Your task to perform on an android device: Open sound settings Image 0: 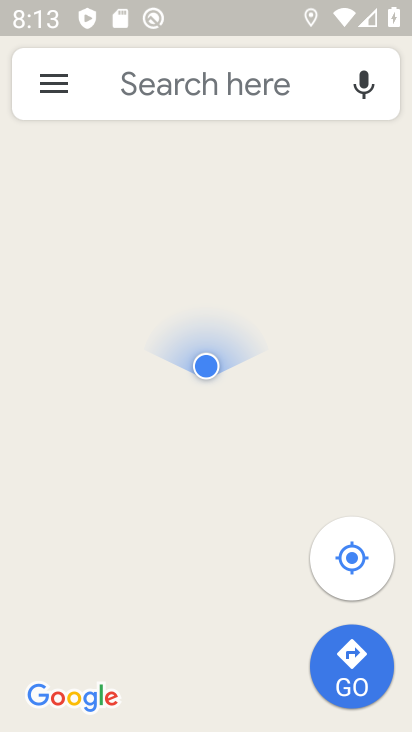
Step 0: press home button
Your task to perform on an android device: Open sound settings Image 1: 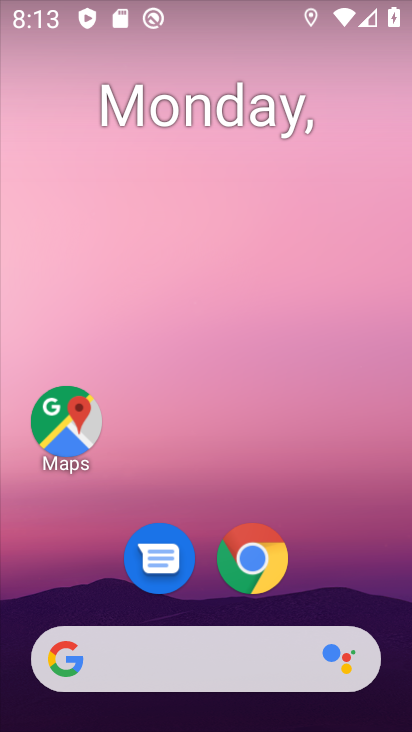
Step 1: drag from (340, 553) to (280, 189)
Your task to perform on an android device: Open sound settings Image 2: 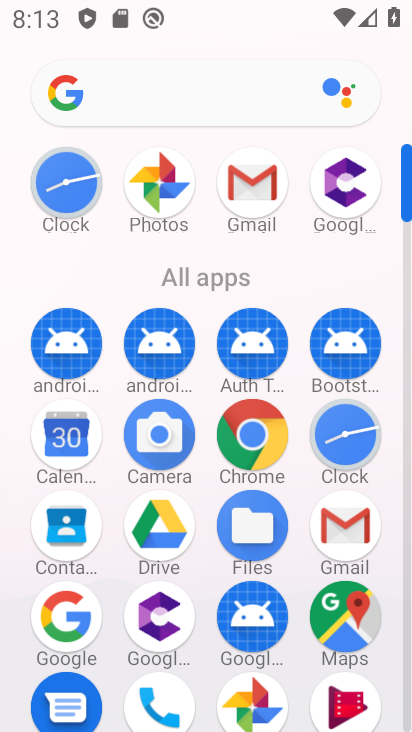
Step 2: drag from (199, 534) to (344, 171)
Your task to perform on an android device: Open sound settings Image 3: 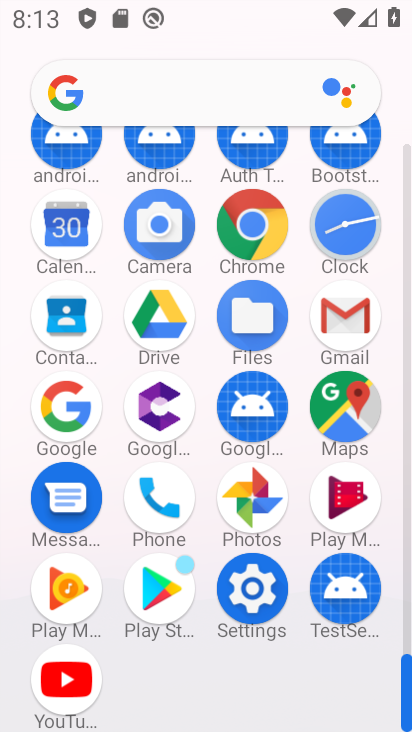
Step 3: click (256, 591)
Your task to perform on an android device: Open sound settings Image 4: 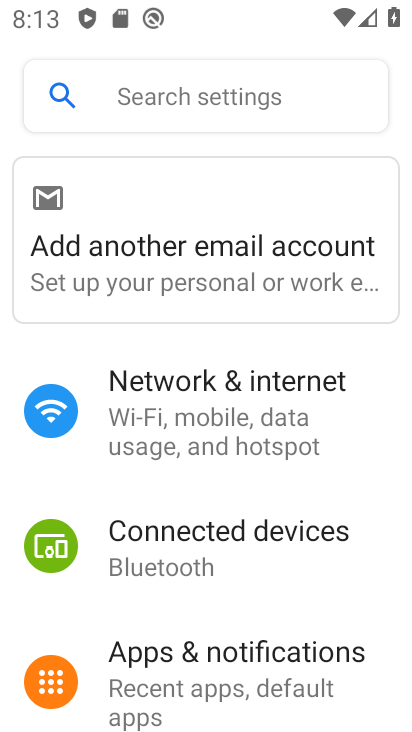
Step 4: drag from (254, 587) to (320, 230)
Your task to perform on an android device: Open sound settings Image 5: 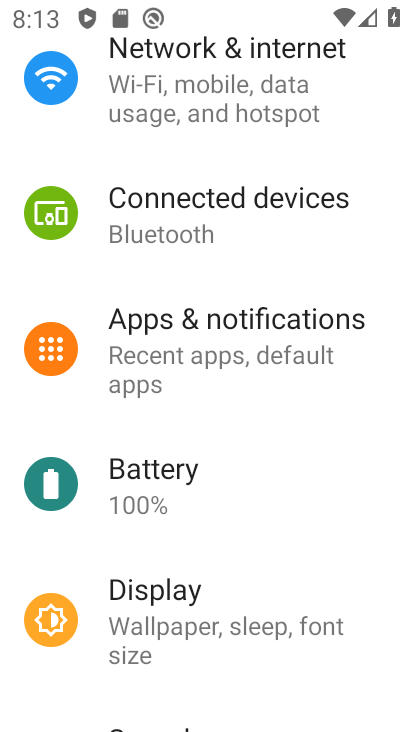
Step 5: drag from (308, 535) to (383, 265)
Your task to perform on an android device: Open sound settings Image 6: 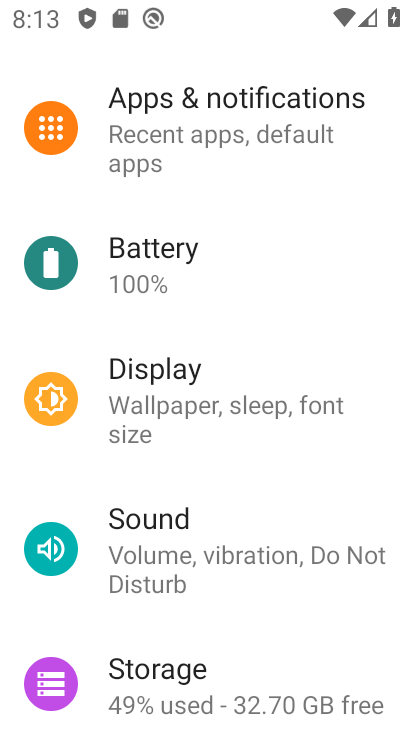
Step 6: click (187, 549)
Your task to perform on an android device: Open sound settings Image 7: 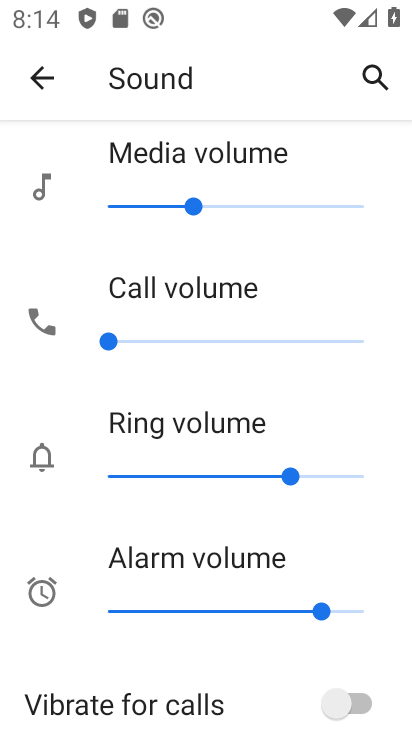
Step 7: task complete